Your task to perform on an android device: turn on showing notifications on the lock screen Image 0: 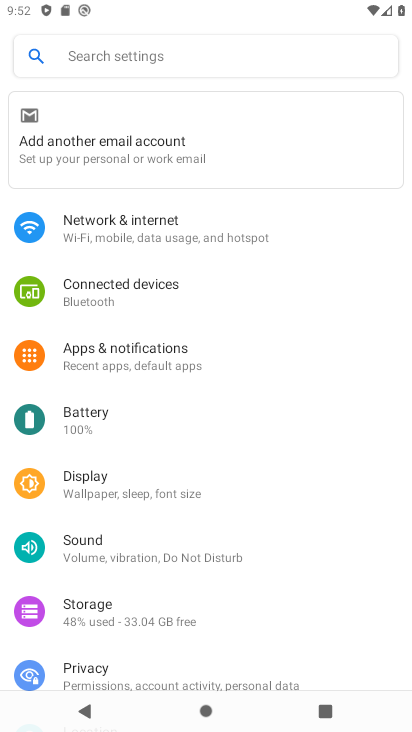
Step 0: click (106, 347)
Your task to perform on an android device: turn on showing notifications on the lock screen Image 1: 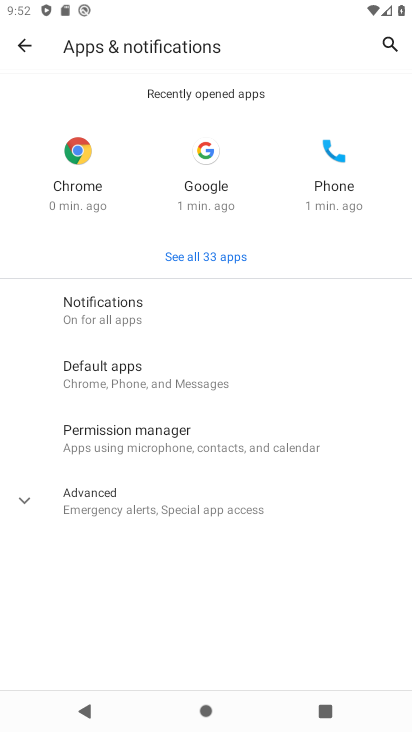
Step 1: click (86, 300)
Your task to perform on an android device: turn on showing notifications on the lock screen Image 2: 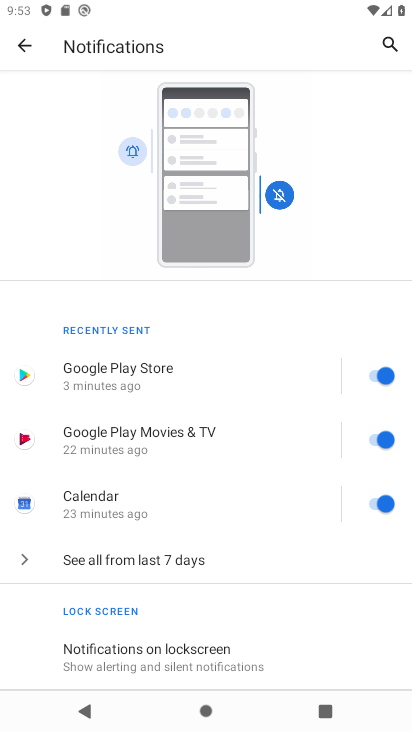
Step 2: click (150, 651)
Your task to perform on an android device: turn on showing notifications on the lock screen Image 3: 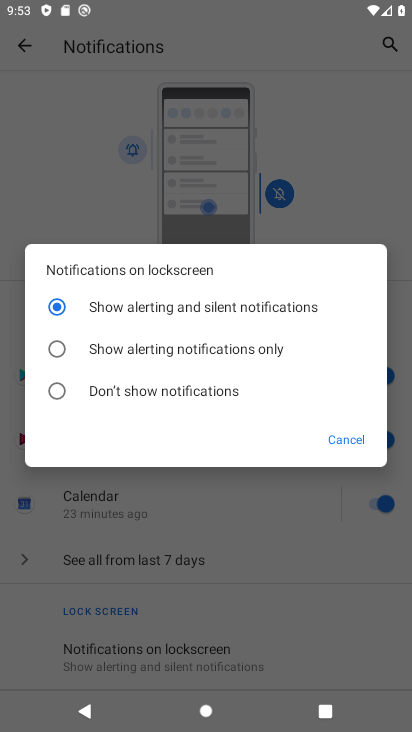
Step 3: task complete